Your task to perform on an android device: Open wifi settings Image 0: 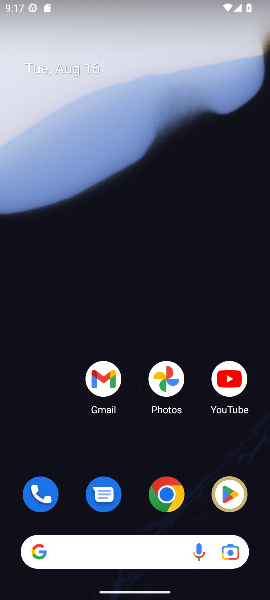
Step 0: drag from (185, 288) to (194, 408)
Your task to perform on an android device: Open wifi settings Image 1: 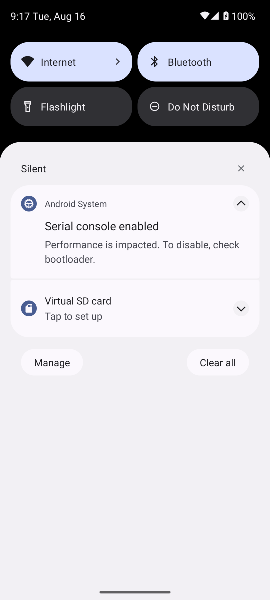
Step 1: click (103, 67)
Your task to perform on an android device: Open wifi settings Image 2: 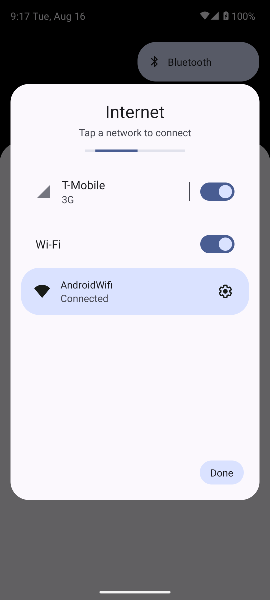
Step 2: click (228, 291)
Your task to perform on an android device: Open wifi settings Image 3: 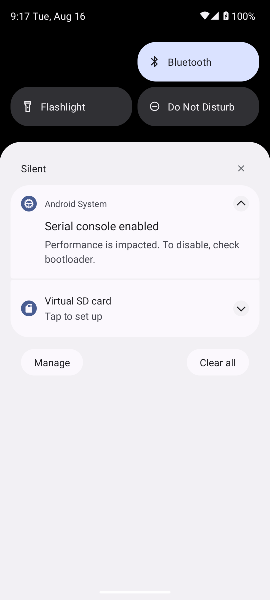
Step 3: task complete